Your task to perform on an android device: Open the Play Movies app and select the watchlist tab. Image 0: 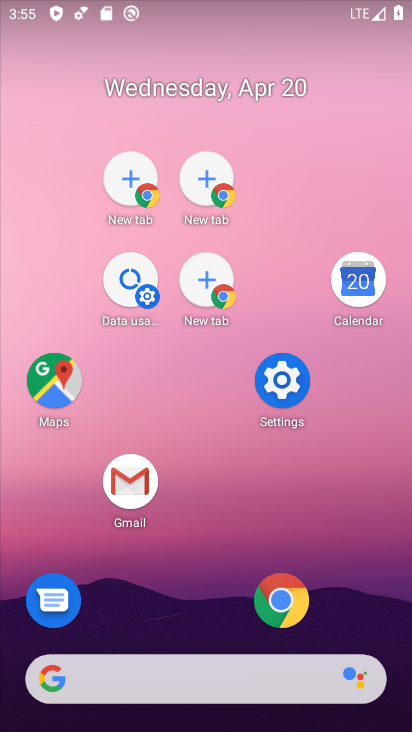
Step 0: drag from (162, 483) to (129, 237)
Your task to perform on an android device: Open the Play Movies app and select the watchlist tab. Image 1: 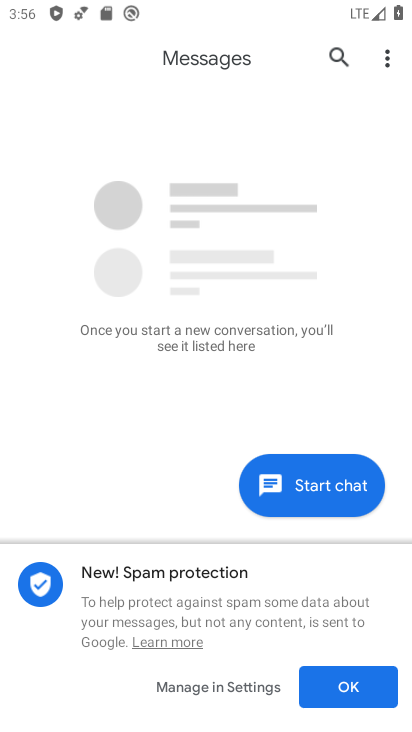
Step 1: press home button
Your task to perform on an android device: Open the Play Movies app and select the watchlist tab. Image 2: 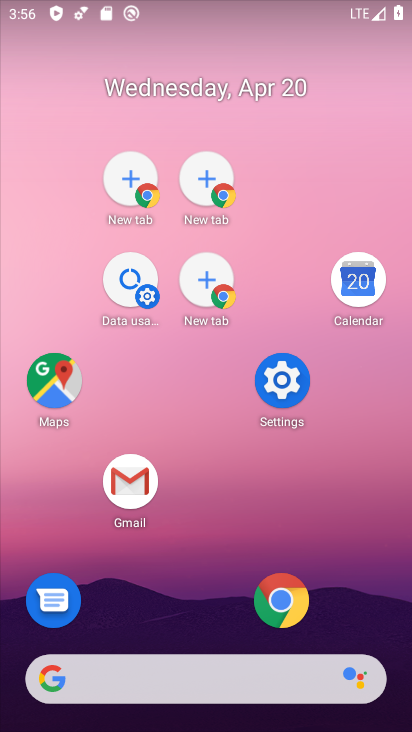
Step 2: drag from (337, 718) to (136, 128)
Your task to perform on an android device: Open the Play Movies app and select the watchlist tab. Image 3: 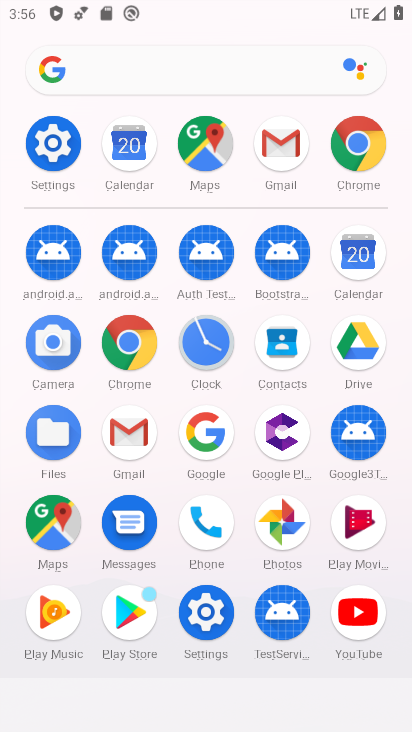
Step 3: click (365, 513)
Your task to perform on an android device: Open the Play Movies app and select the watchlist tab. Image 4: 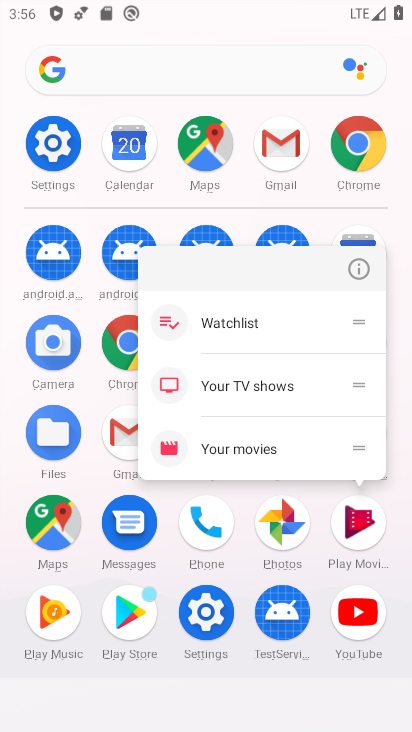
Step 4: click (351, 518)
Your task to perform on an android device: Open the Play Movies app and select the watchlist tab. Image 5: 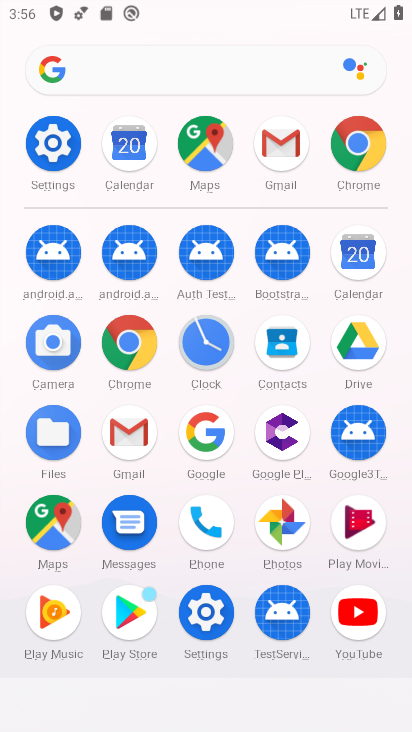
Step 5: click (362, 532)
Your task to perform on an android device: Open the Play Movies app and select the watchlist tab. Image 6: 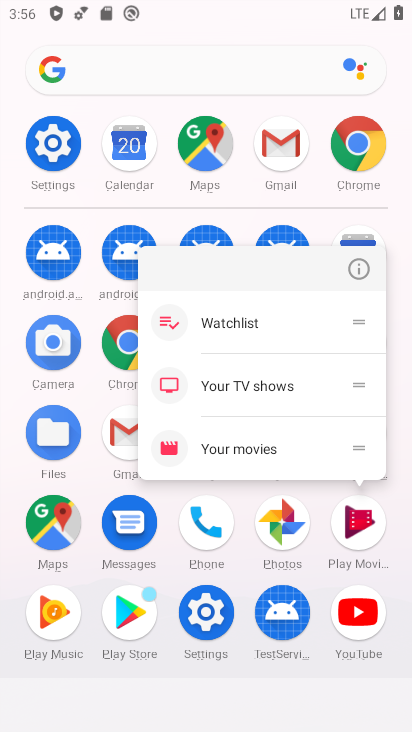
Step 6: click (360, 531)
Your task to perform on an android device: Open the Play Movies app and select the watchlist tab. Image 7: 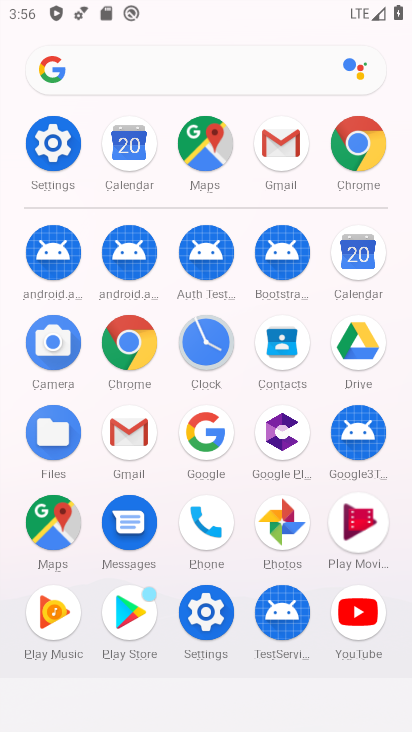
Step 7: click (362, 514)
Your task to perform on an android device: Open the Play Movies app and select the watchlist tab. Image 8: 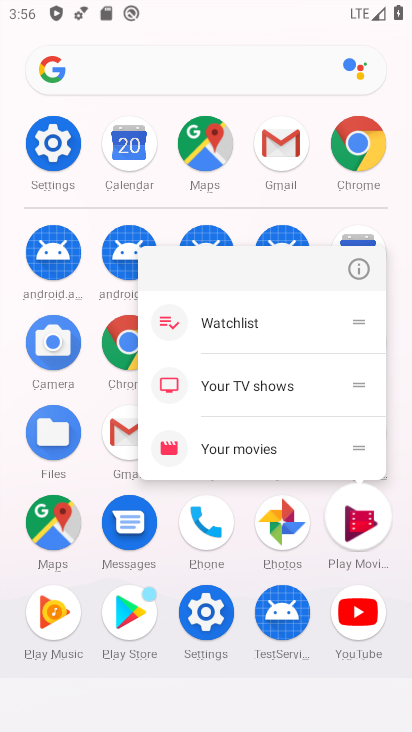
Step 8: click (365, 511)
Your task to perform on an android device: Open the Play Movies app and select the watchlist tab. Image 9: 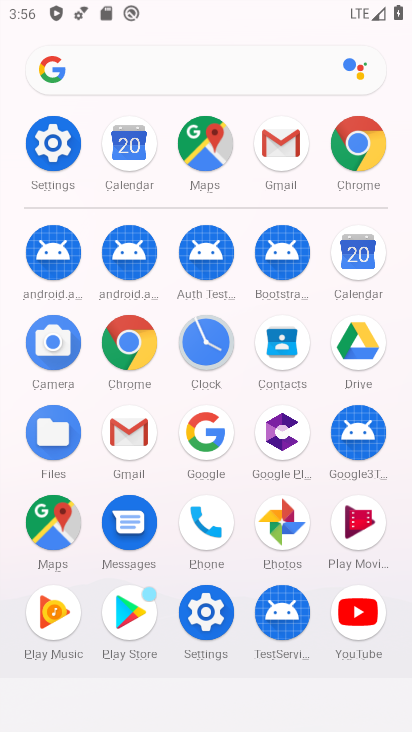
Step 9: drag from (291, 341) to (334, 386)
Your task to perform on an android device: Open the Play Movies app and select the watchlist tab. Image 10: 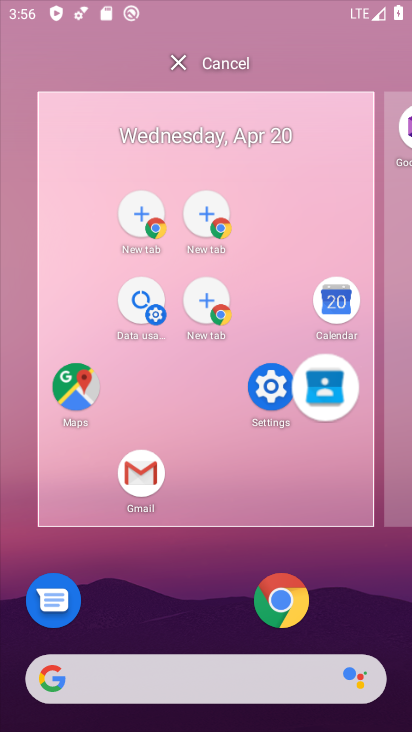
Step 10: click (355, 523)
Your task to perform on an android device: Open the Play Movies app and select the watchlist tab. Image 11: 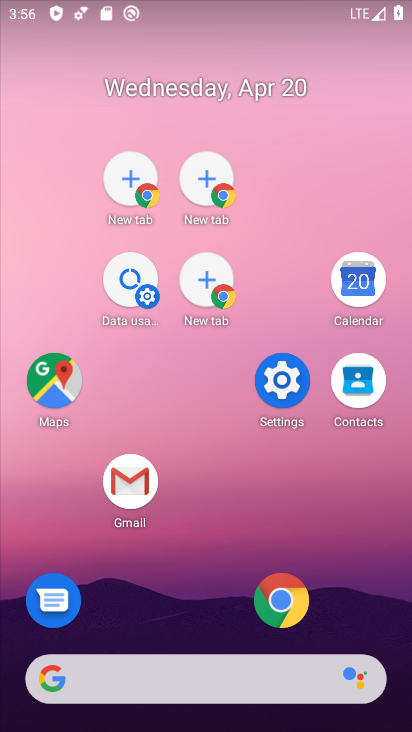
Step 11: drag from (379, 678) to (140, 154)
Your task to perform on an android device: Open the Play Movies app and select the watchlist tab. Image 12: 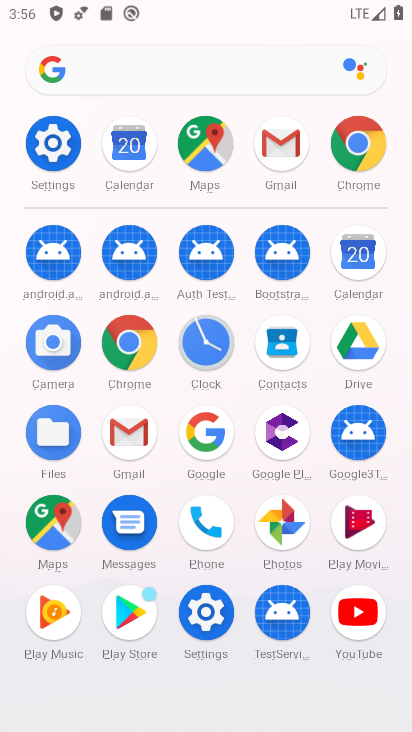
Step 12: drag from (397, 607) to (114, 278)
Your task to perform on an android device: Open the Play Movies app and select the watchlist tab. Image 13: 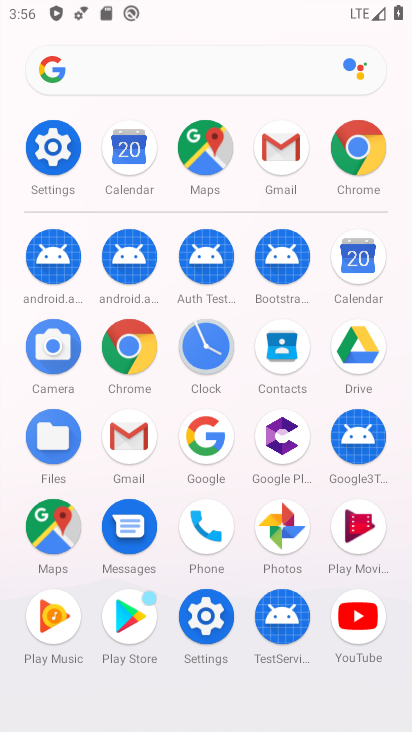
Step 13: click (366, 522)
Your task to perform on an android device: Open the Play Movies app and select the watchlist tab. Image 14: 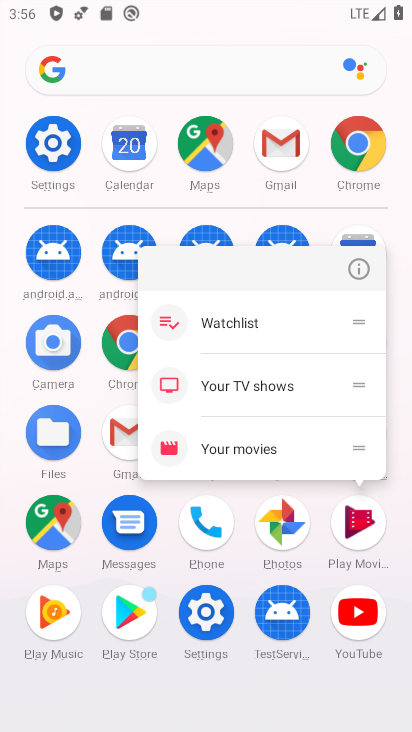
Step 14: click (217, 308)
Your task to perform on an android device: Open the Play Movies app and select the watchlist tab. Image 15: 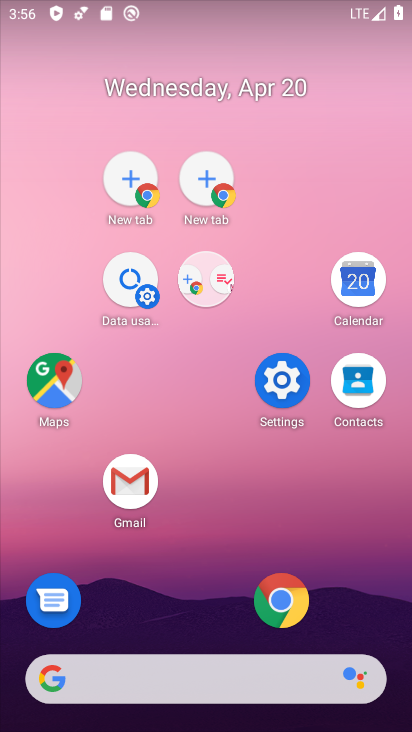
Step 15: task complete